Your task to perform on an android device: Open maps Image 0: 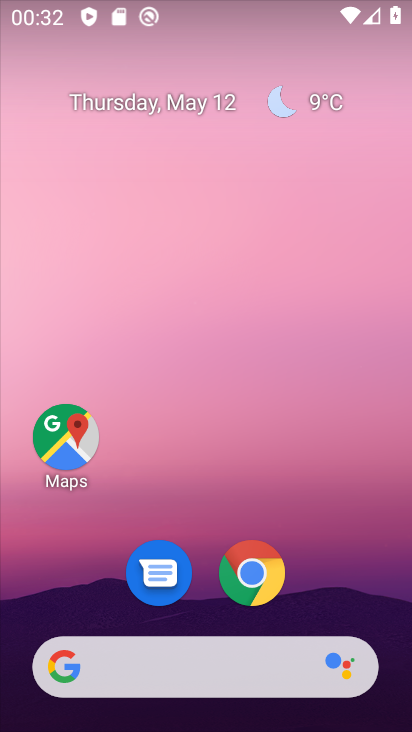
Step 0: click (53, 438)
Your task to perform on an android device: Open maps Image 1: 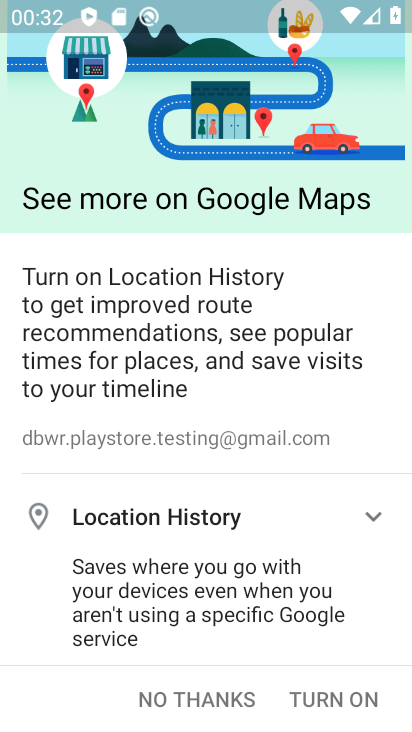
Step 1: click (195, 703)
Your task to perform on an android device: Open maps Image 2: 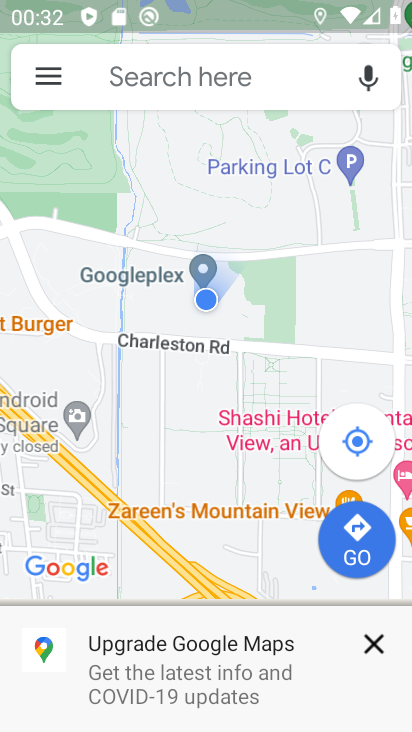
Step 2: click (365, 639)
Your task to perform on an android device: Open maps Image 3: 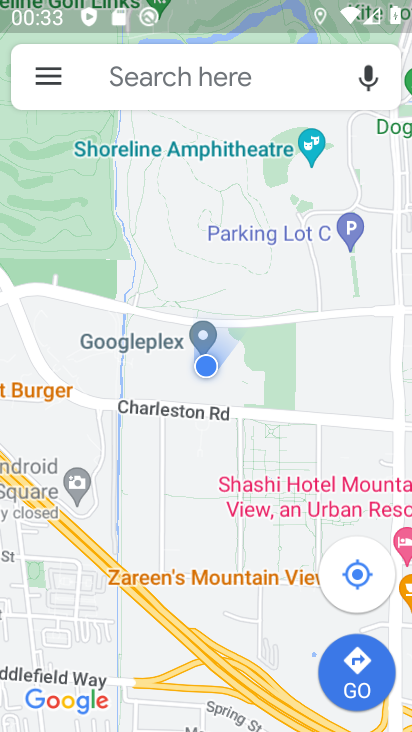
Step 3: task complete